Your task to perform on an android device: See recent photos Image 0: 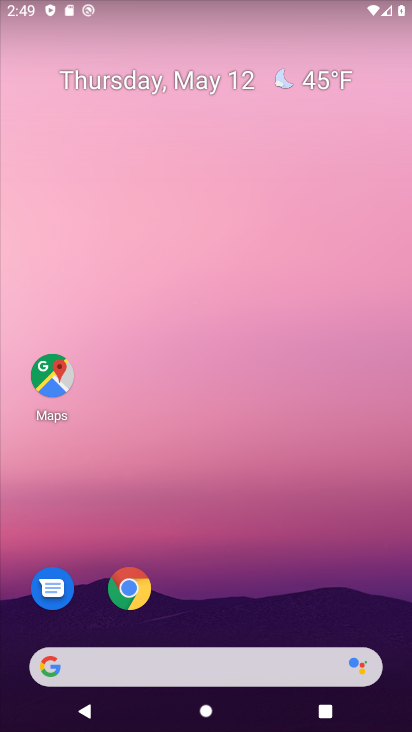
Step 0: drag from (200, 612) to (233, 319)
Your task to perform on an android device: See recent photos Image 1: 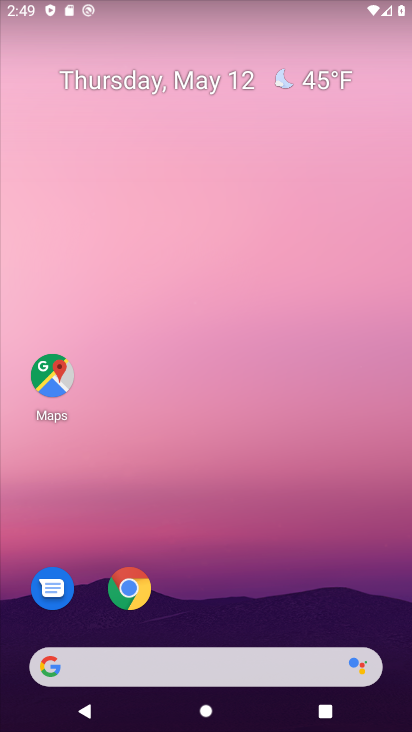
Step 1: click (248, 200)
Your task to perform on an android device: See recent photos Image 2: 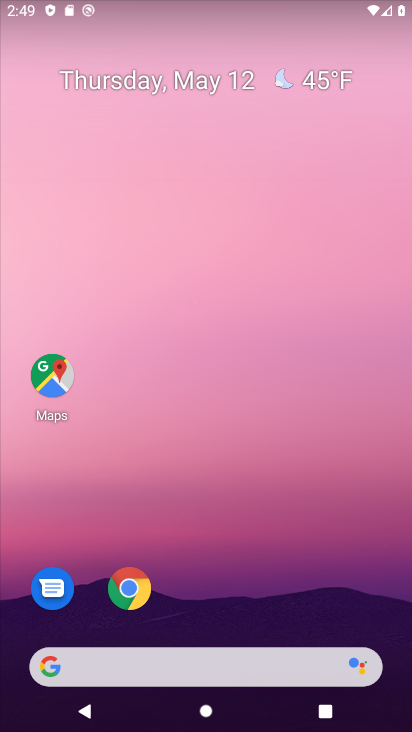
Step 2: drag from (267, 634) to (312, 96)
Your task to perform on an android device: See recent photos Image 3: 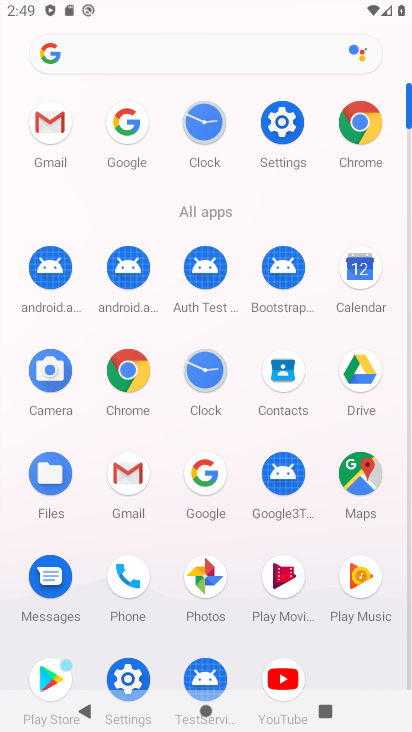
Step 3: click (260, 148)
Your task to perform on an android device: See recent photos Image 4: 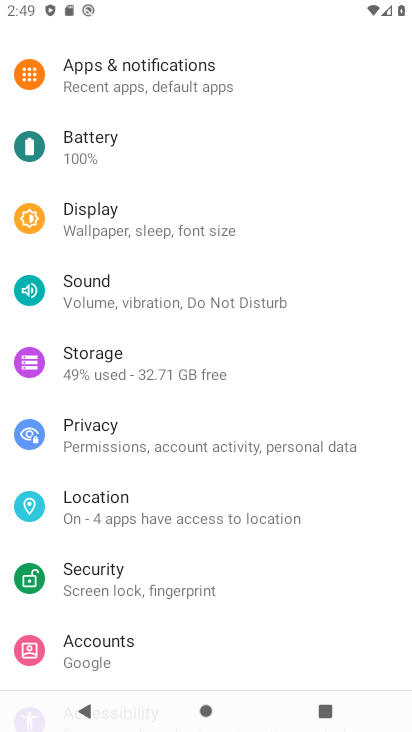
Step 4: press home button
Your task to perform on an android device: See recent photos Image 5: 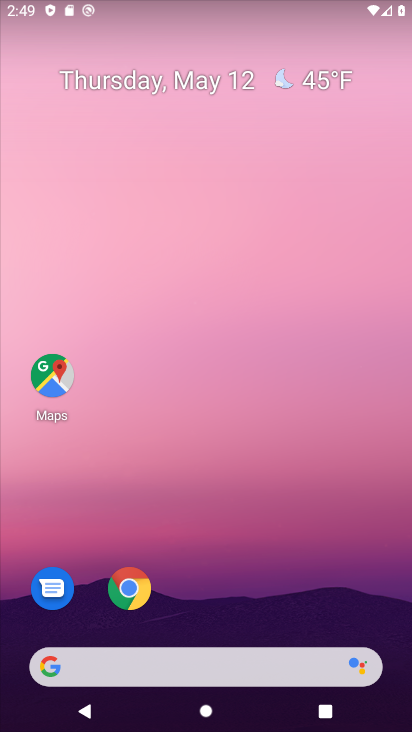
Step 5: drag from (194, 609) to (228, 218)
Your task to perform on an android device: See recent photos Image 6: 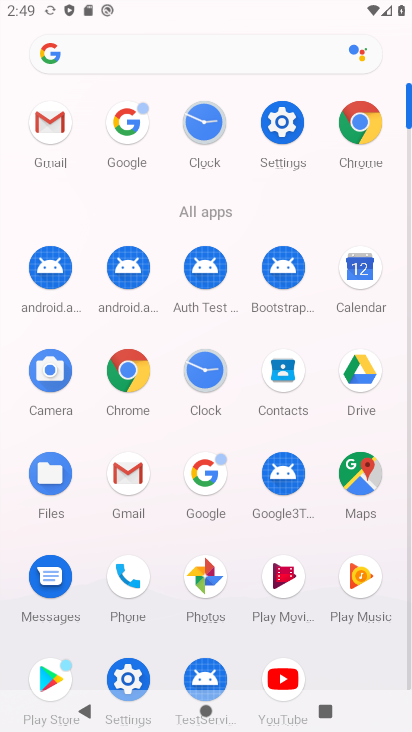
Step 6: click (199, 589)
Your task to perform on an android device: See recent photos Image 7: 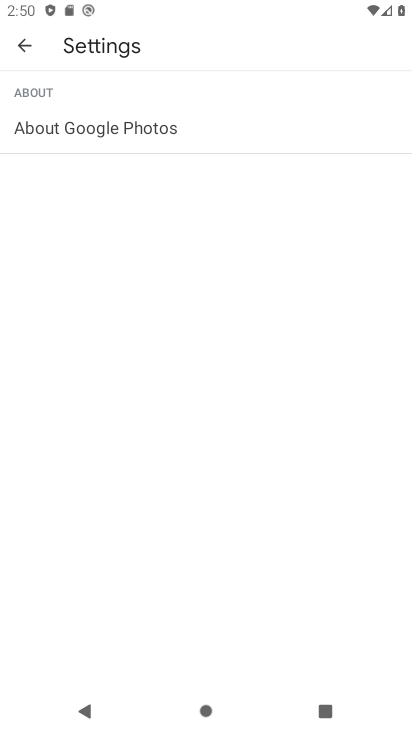
Step 7: click (25, 46)
Your task to perform on an android device: See recent photos Image 8: 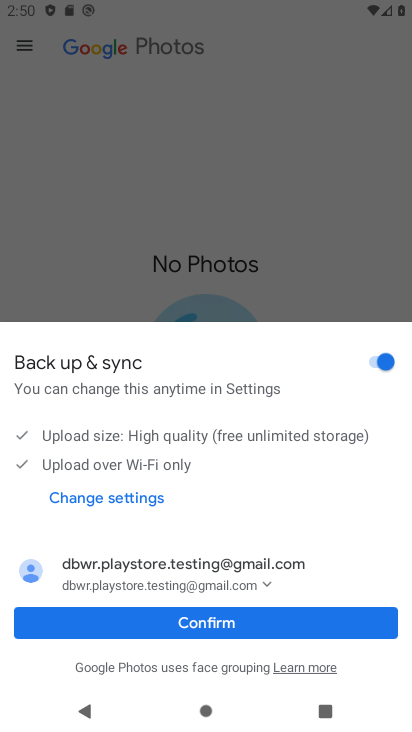
Step 8: click (201, 638)
Your task to perform on an android device: See recent photos Image 9: 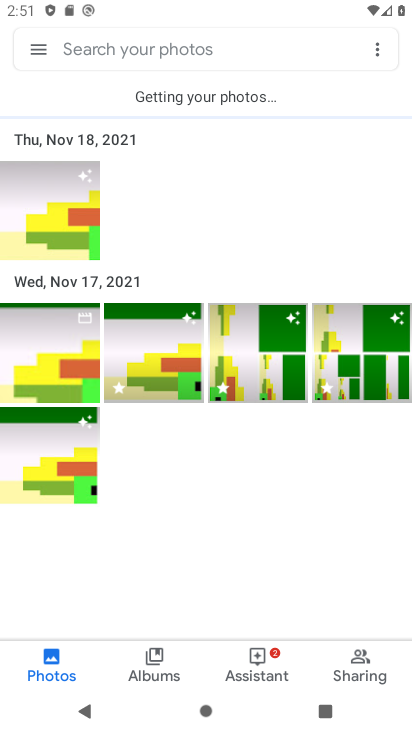
Step 9: task complete